Your task to perform on an android device: Search for flights from Zurich to Helsinki Image 0: 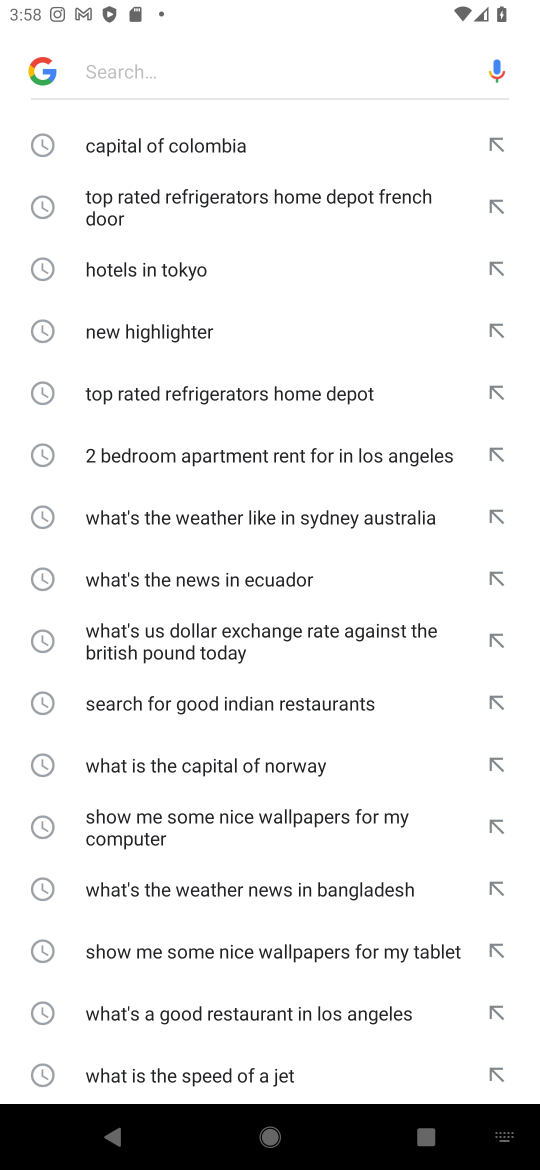
Step 0: press home button
Your task to perform on an android device: Search for flights from Zurich to Helsinki Image 1: 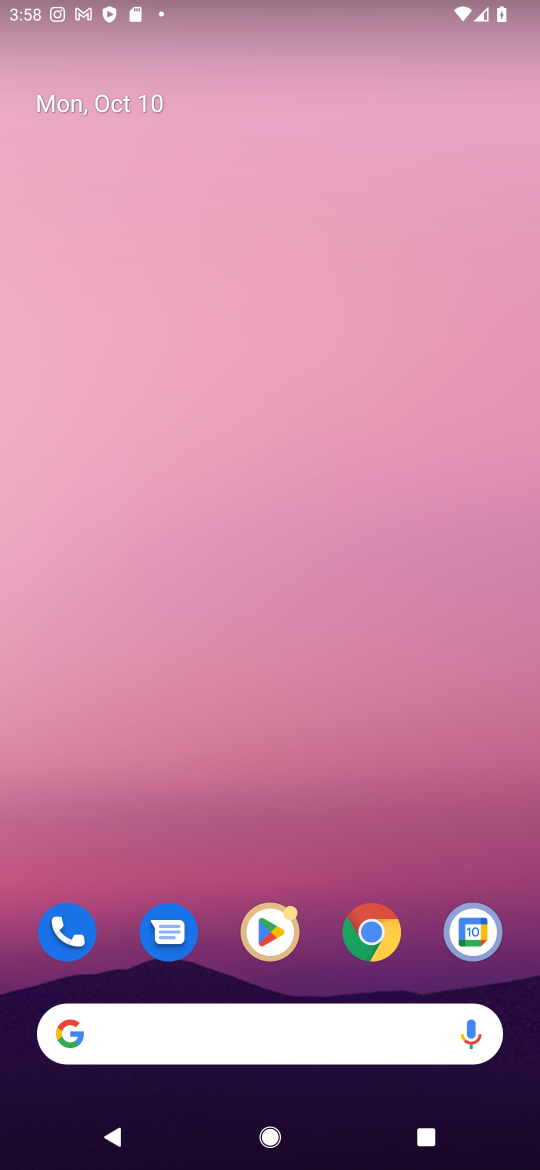
Step 1: click (286, 1039)
Your task to perform on an android device: Search for flights from Zurich to Helsinki Image 2: 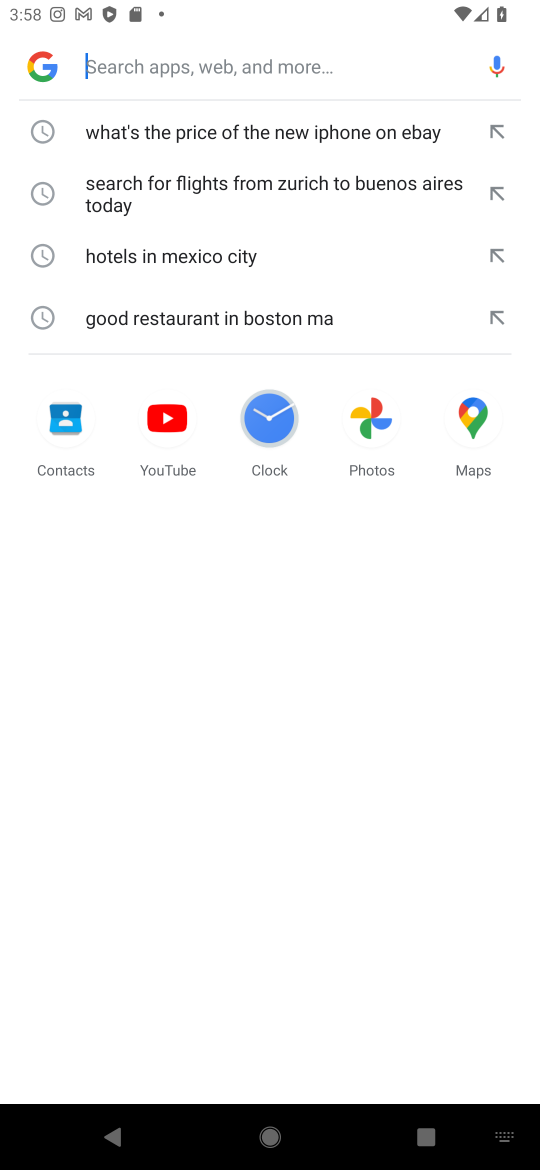
Step 2: type "flights from Zurich to Helsinki"
Your task to perform on an android device: Search for flights from Zurich to Helsinki Image 3: 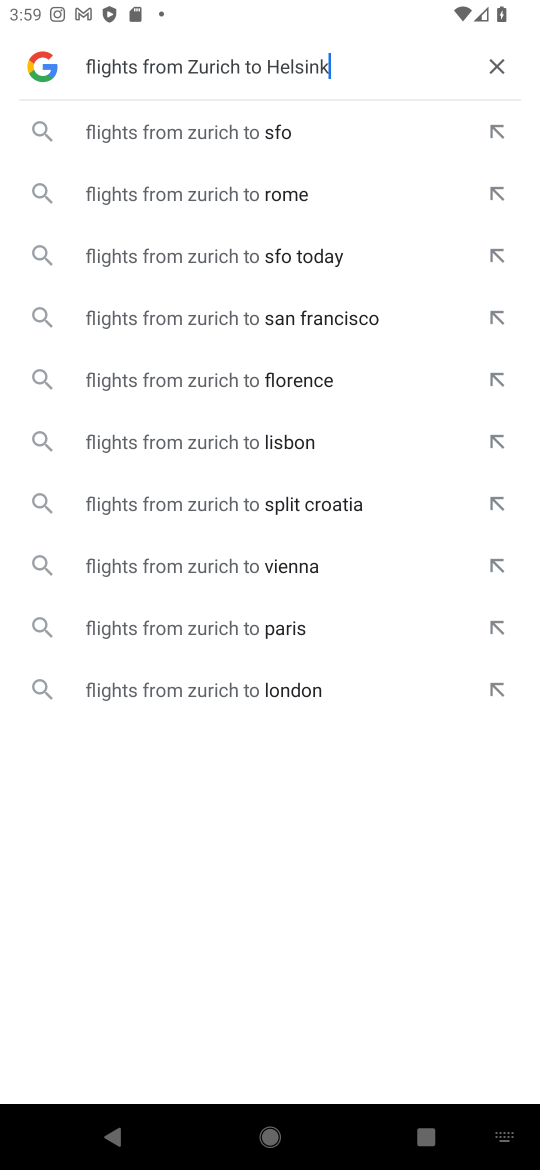
Step 3: press enter
Your task to perform on an android device: Search for flights from Zurich to Helsinki Image 4: 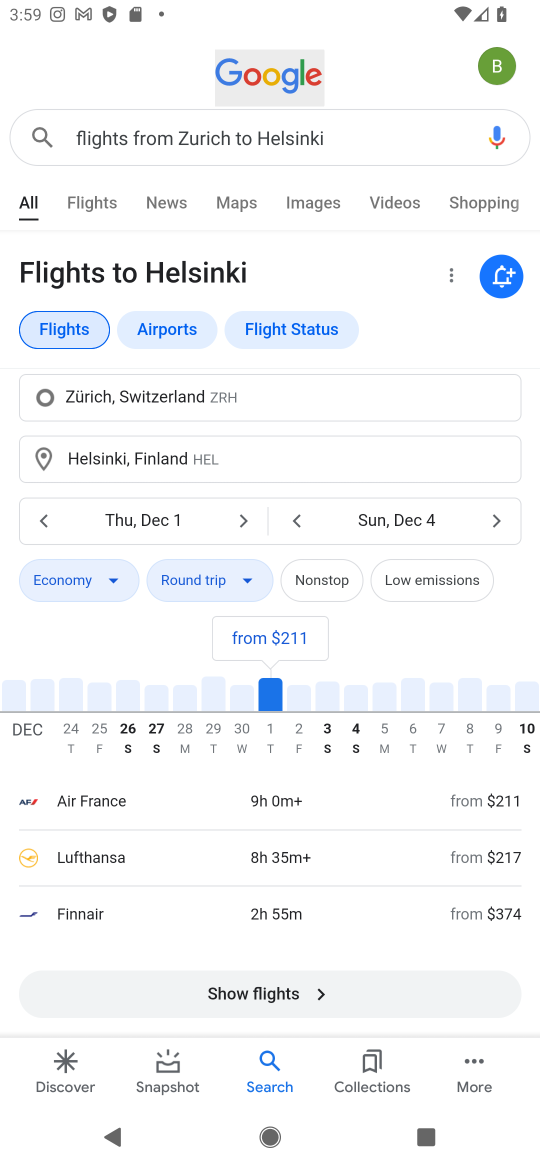
Step 4: drag from (377, 891) to (369, 587)
Your task to perform on an android device: Search for flights from Zurich to Helsinki Image 5: 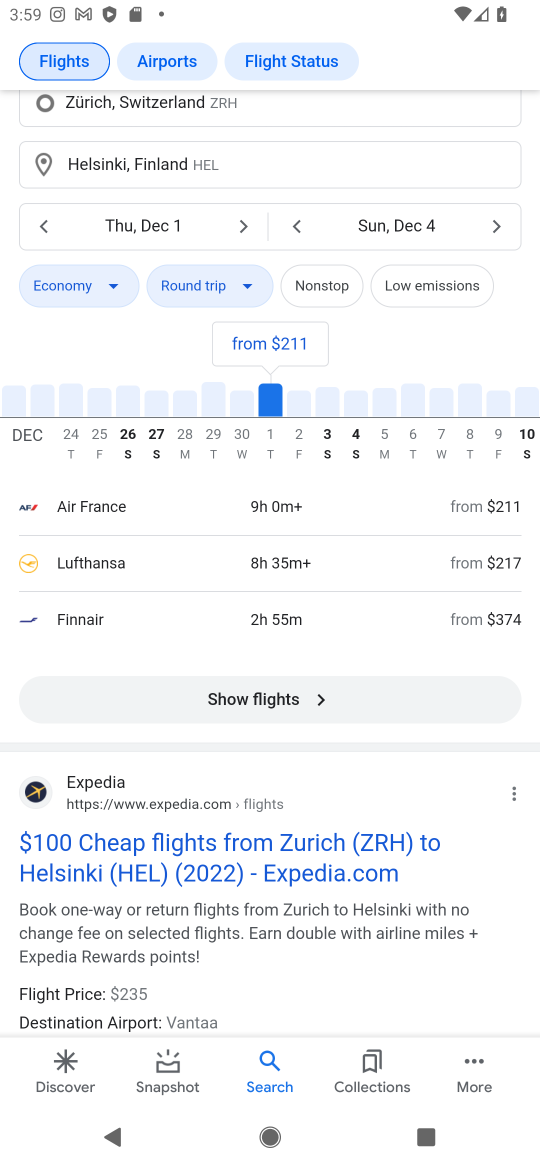
Step 5: click (256, 701)
Your task to perform on an android device: Search for flights from Zurich to Helsinki Image 6: 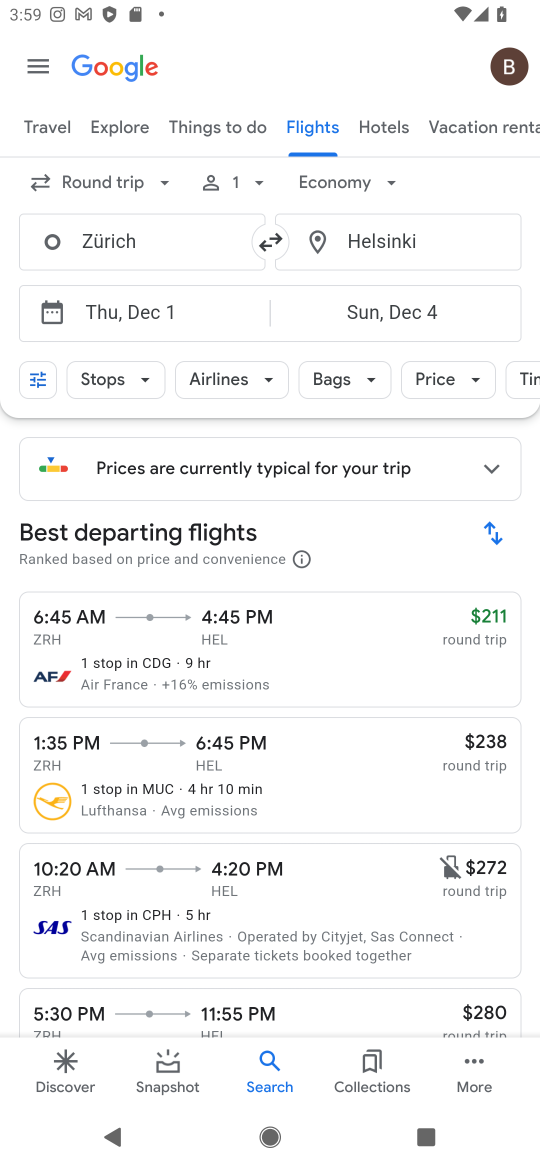
Step 6: task complete